Your task to perform on an android device: Open the calendar app, open the side menu, and click the "Day" option Image 0: 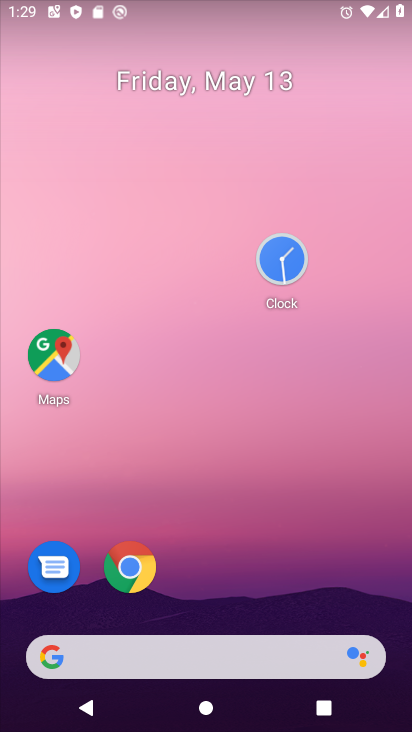
Step 0: drag from (294, 603) to (297, 61)
Your task to perform on an android device: Open the calendar app, open the side menu, and click the "Day" option Image 1: 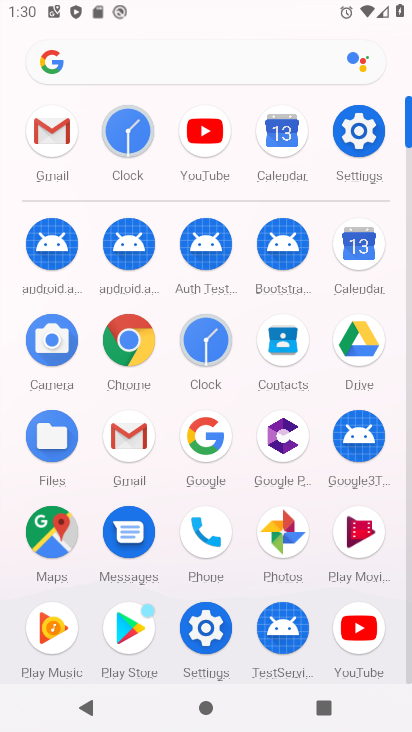
Step 1: click (352, 273)
Your task to perform on an android device: Open the calendar app, open the side menu, and click the "Day" option Image 2: 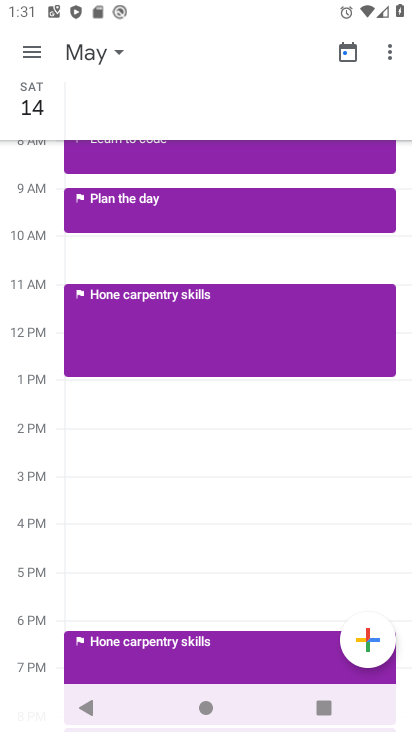
Step 2: click (40, 56)
Your task to perform on an android device: Open the calendar app, open the side menu, and click the "Day" option Image 3: 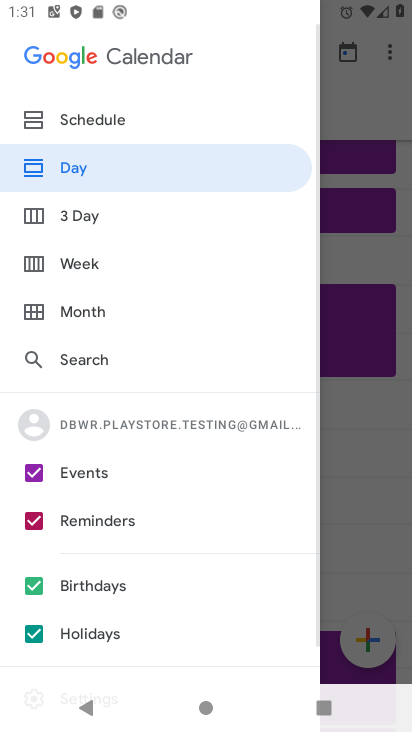
Step 3: click (58, 162)
Your task to perform on an android device: Open the calendar app, open the side menu, and click the "Day" option Image 4: 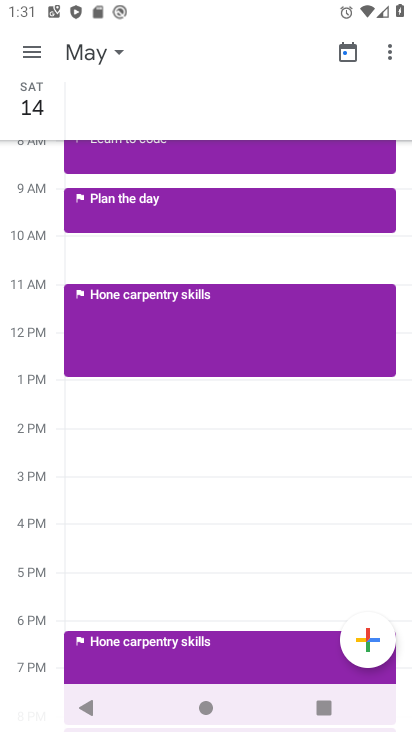
Step 4: task complete